Your task to perform on an android device: toggle data saver in the chrome app Image 0: 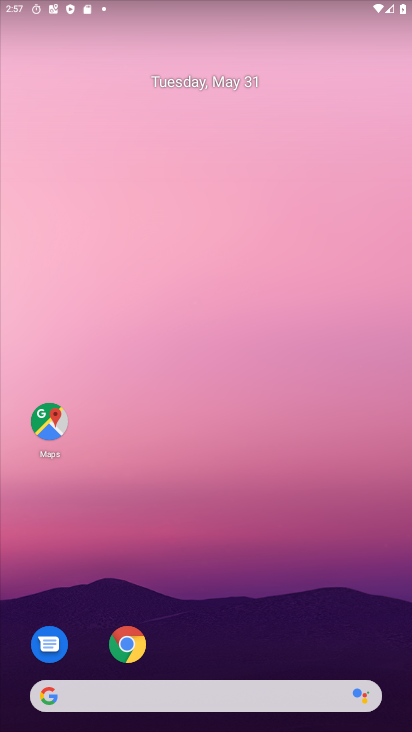
Step 0: click (120, 642)
Your task to perform on an android device: toggle data saver in the chrome app Image 1: 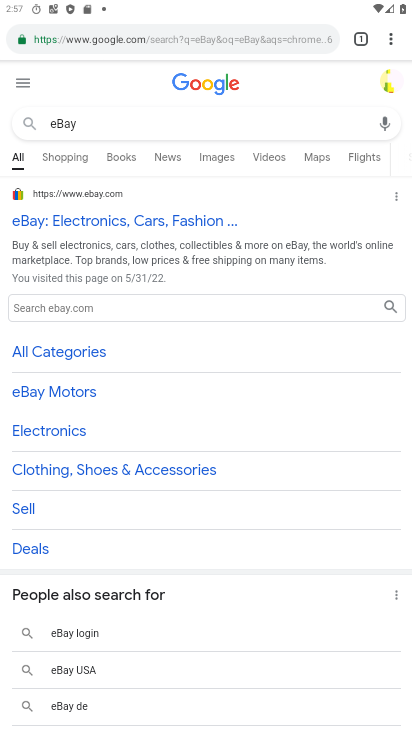
Step 1: click (391, 36)
Your task to perform on an android device: toggle data saver in the chrome app Image 2: 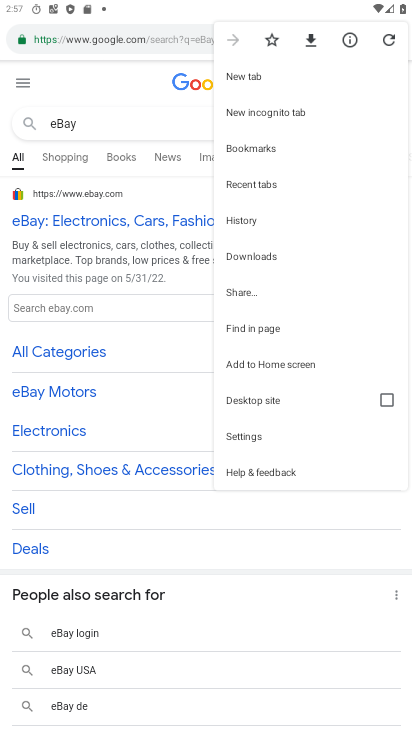
Step 2: click (245, 434)
Your task to perform on an android device: toggle data saver in the chrome app Image 3: 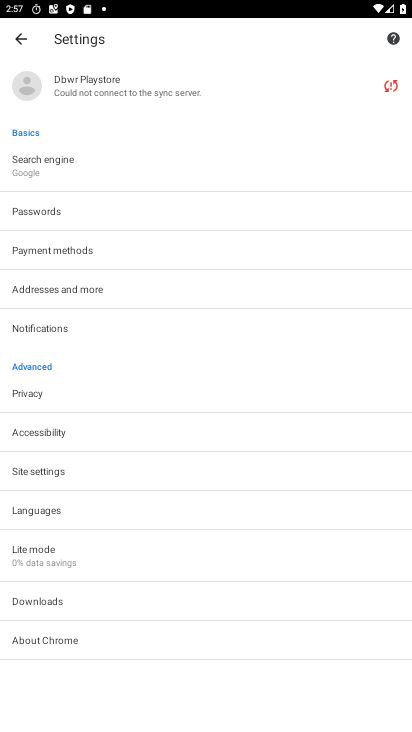
Step 3: click (32, 544)
Your task to perform on an android device: toggle data saver in the chrome app Image 4: 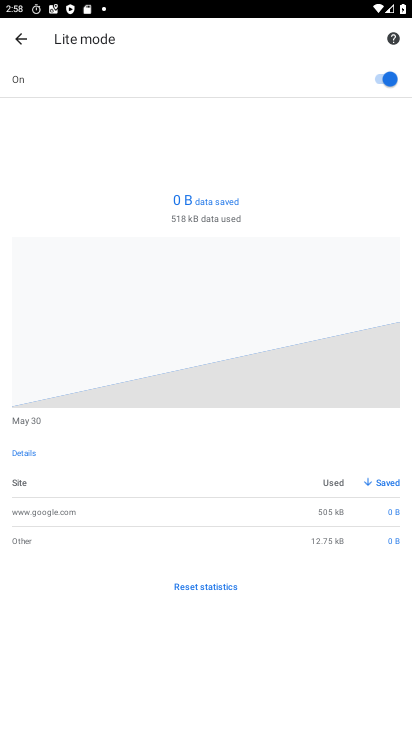
Step 4: click (378, 82)
Your task to perform on an android device: toggle data saver in the chrome app Image 5: 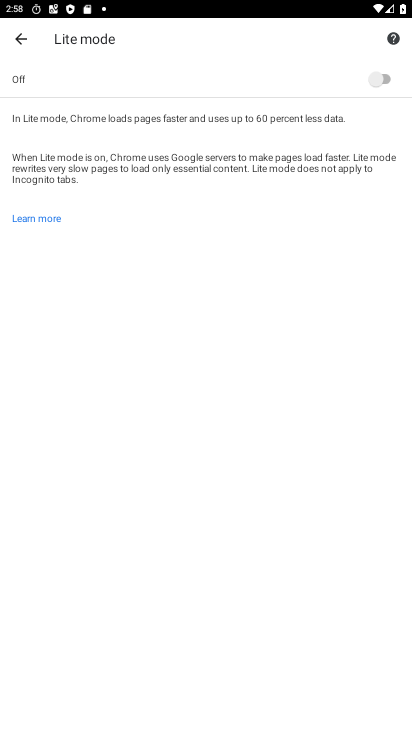
Step 5: task complete